Your task to perform on an android device: star an email in the gmail app Image 0: 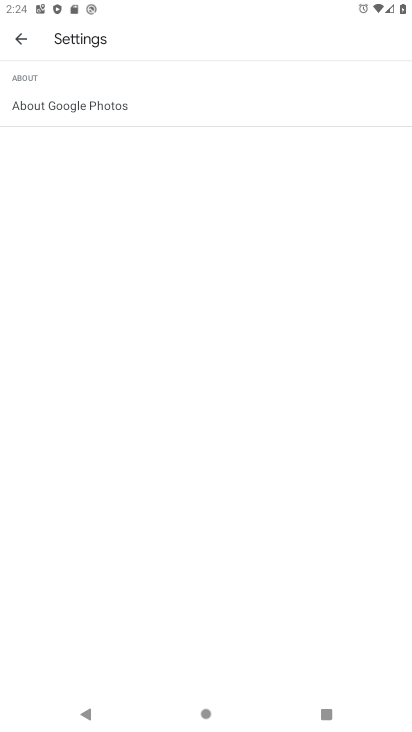
Step 0: press home button
Your task to perform on an android device: star an email in the gmail app Image 1: 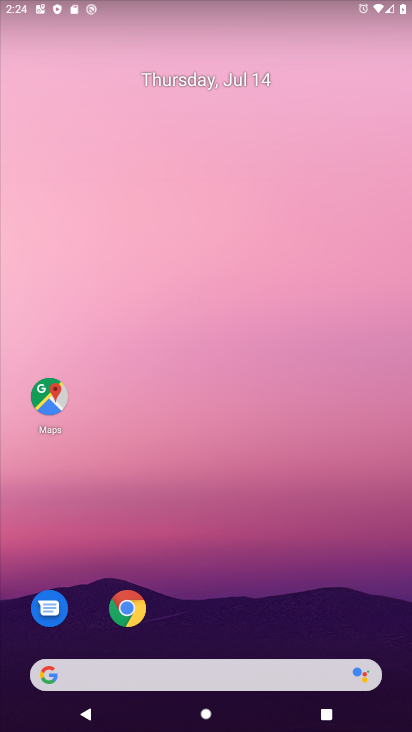
Step 1: drag from (256, 728) to (223, 207)
Your task to perform on an android device: star an email in the gmail app Image 2: 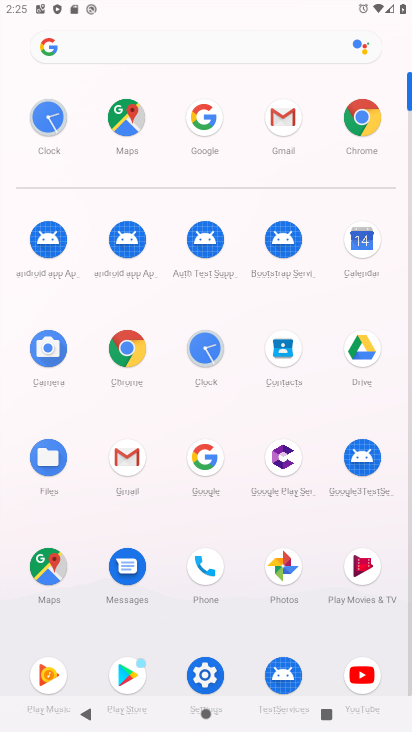
Step 2: click (118, 455)
Your task to perform on an android device: star an email in the gmail app Image 3: 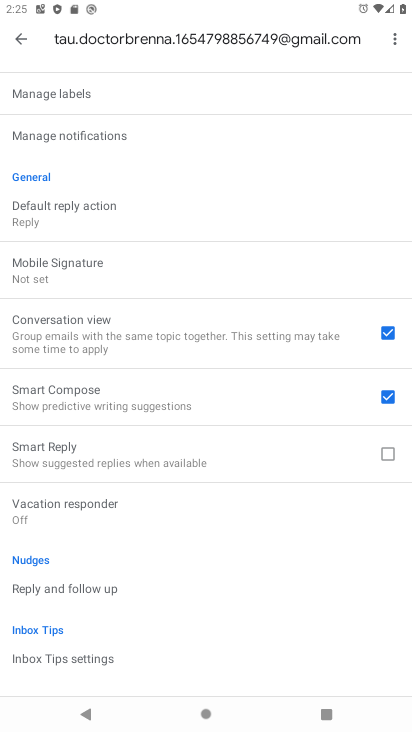
Step 3: click (21, 36)
Your task to perform on an android device: star an email in the gmail app Image 4: 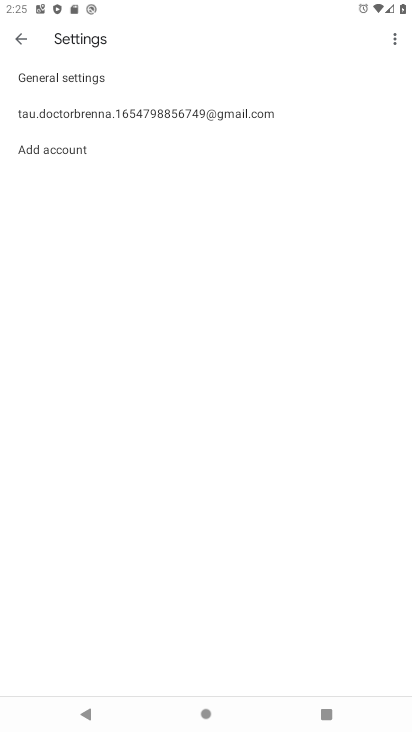
Step 4: click (21, 36)
Your task to perform on an android device: star an email in the gmail app Image 5: 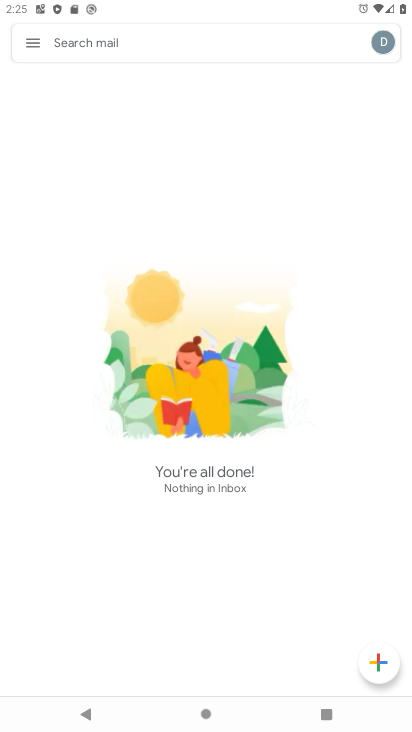
Step 5: task complete